Your task to perform on an android device: Open wifi settings Image 0: 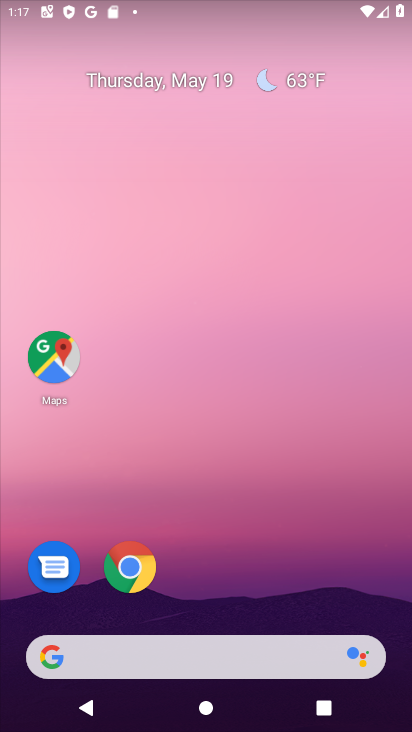
Step 0: drag from (218, 582) to (247, 98)
Your task to perform on an android device: Open wifi settings Image 1: 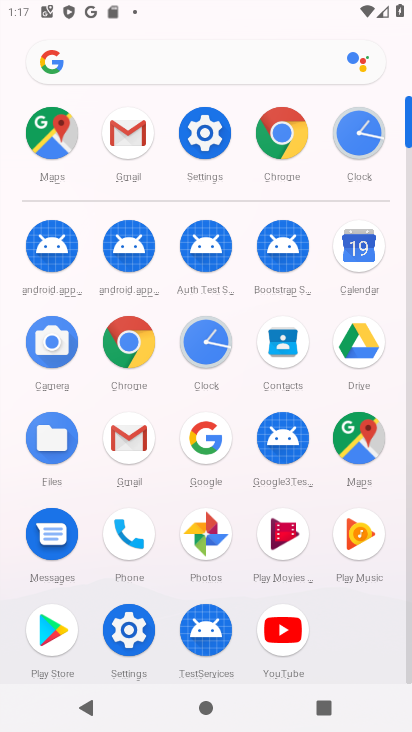
Step 1: click (196, 148)
Your task to perform on an android device: Open wifi settings Image 2: 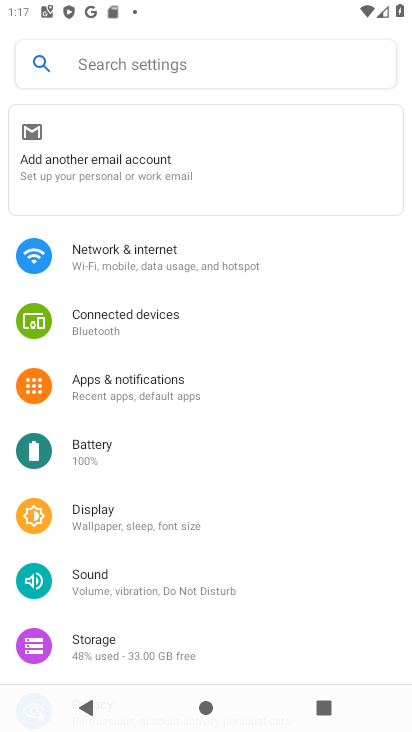
Step 2: click (162, 236)
Your task to perform on an android device: Open wifi settings Image 3: 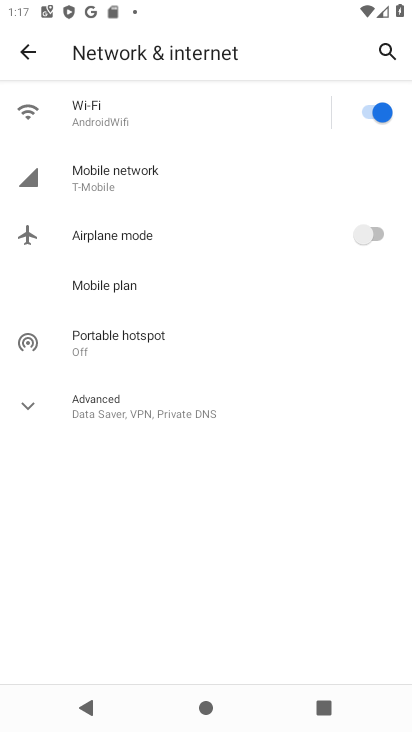
Step 3: click (149, 121)
Your task to perform on an android device: Open wifi settings Image 4: 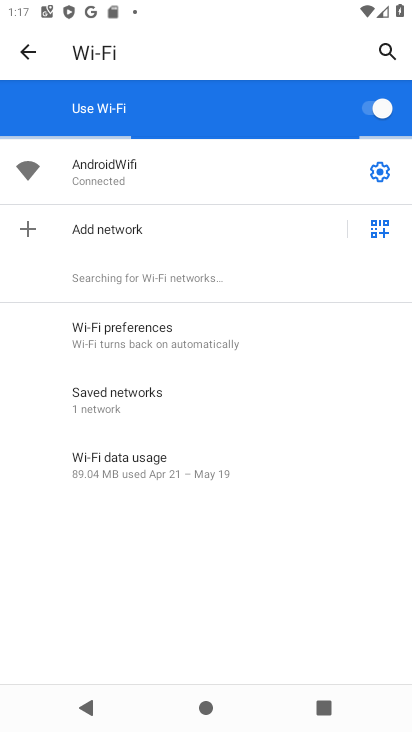
Step 4: task complete